Your task to perform on an android device: add a label to a message in the gmail app Image 0: 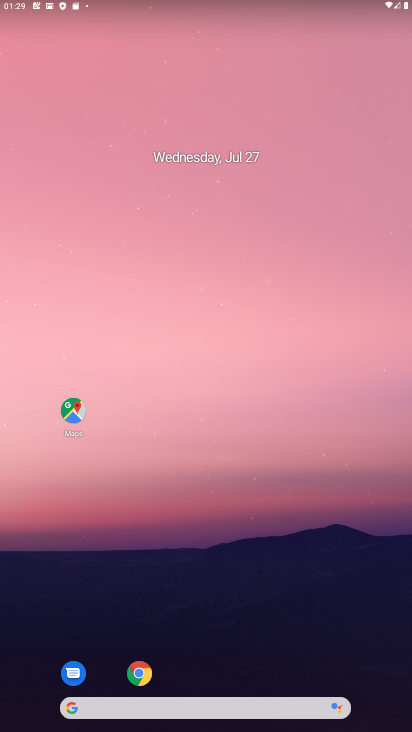
Step 0: drag from (222, 670) to (221, 236)
Your task to perform on an android device: add a label to a message in the gmail app Image 1: 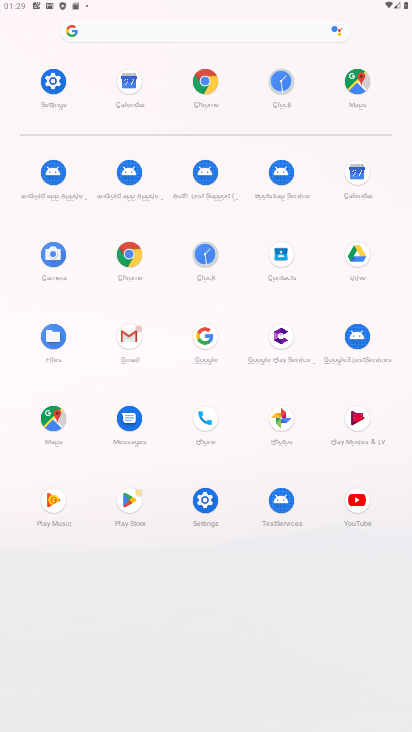
Step 1: click (127, 330)
Your task to perform on an android device: add a label to a message in the gmail app Image 2: 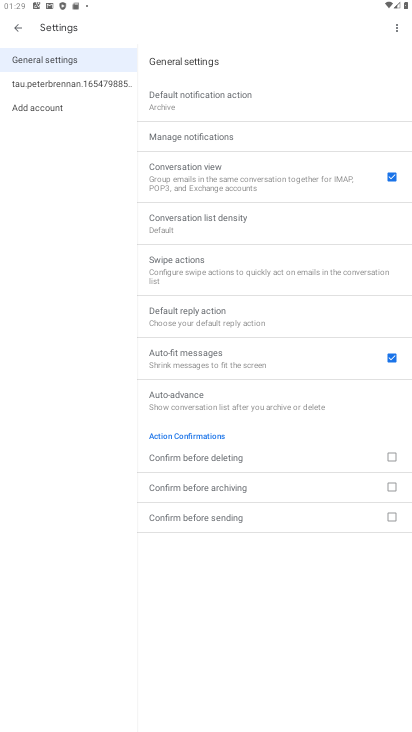
Step 2: click (15, 33)
Your task to perform on an android device: add a label to a message in the gmail app Image 3: 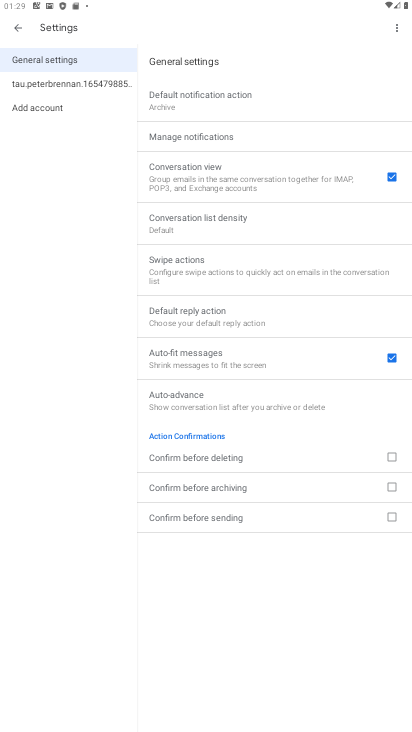
Step 3: click (24, 31)
Your task to perform on an android device: add a label to a message in the gmail app Image 4: 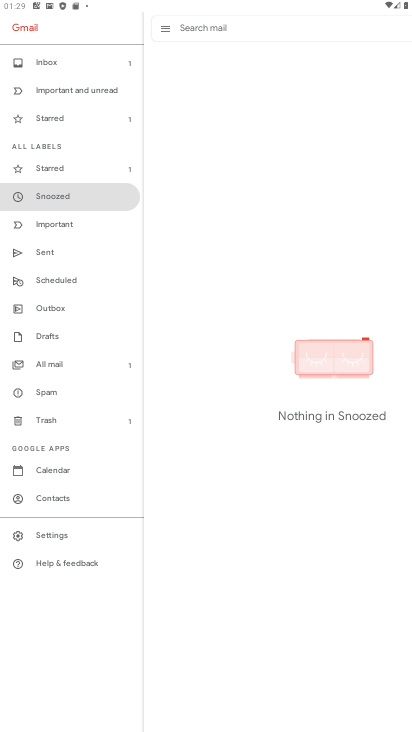
Step 4: click (61, 366)
Your task to perform on an android device: add a label to a message in the gmail app Image 5: 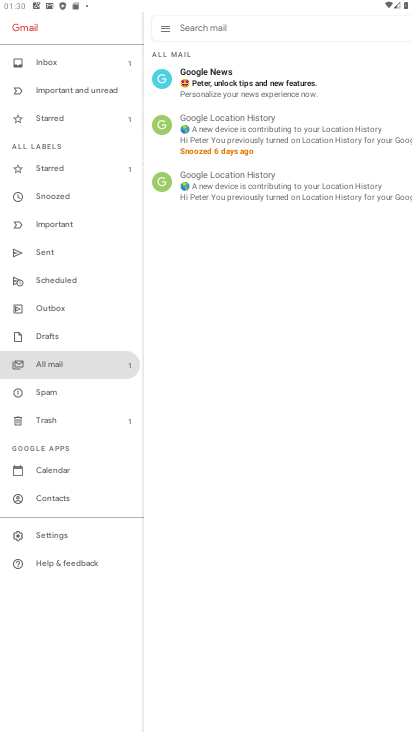
Step 5: click (216, 67)
Your task to perform on an android device: add a label to a message in the gmail app Image 6: 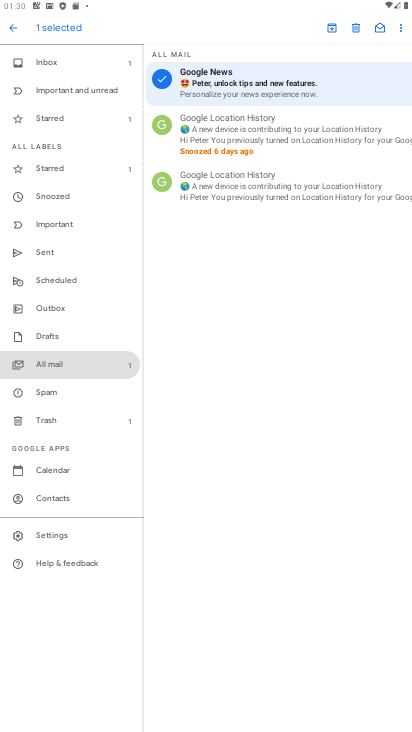
Step 6: click (401, 27)
Your task to perform on an android device: add a label to a message in the gmail app Image 7: 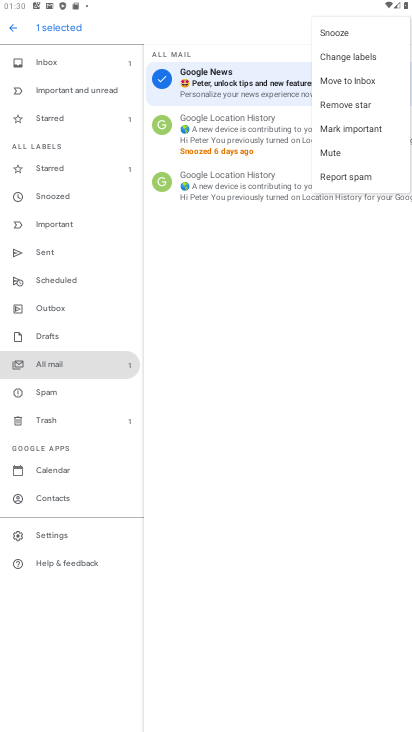
Step 7: click (358, 50)
Your task to perform on an android device: add a label to a message in the gmail app Image 8: 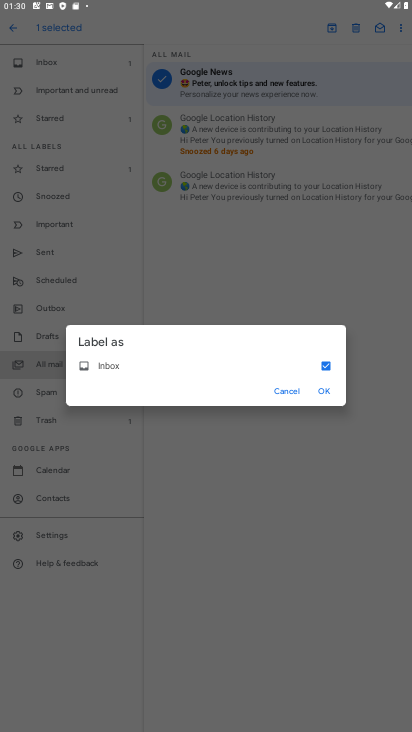
Step 8: click (321, 395)
Your task to perform on an android device: add a label to a message in the gmail app Image 9: 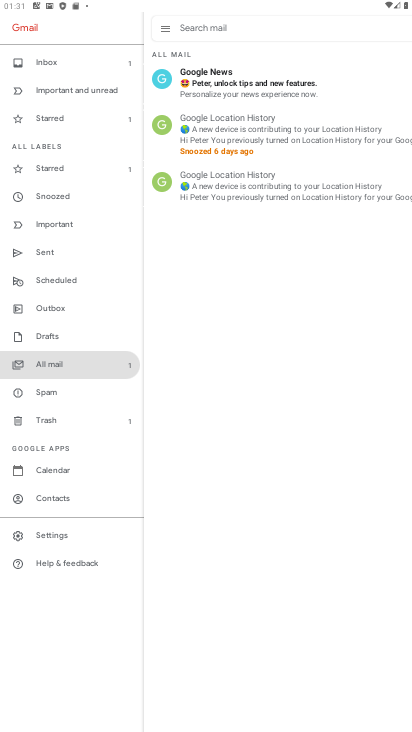
Step 9: task complete